Your task to perform on an android device: Open the calendar app, open the side menu, and click the "Day" option Image 0: 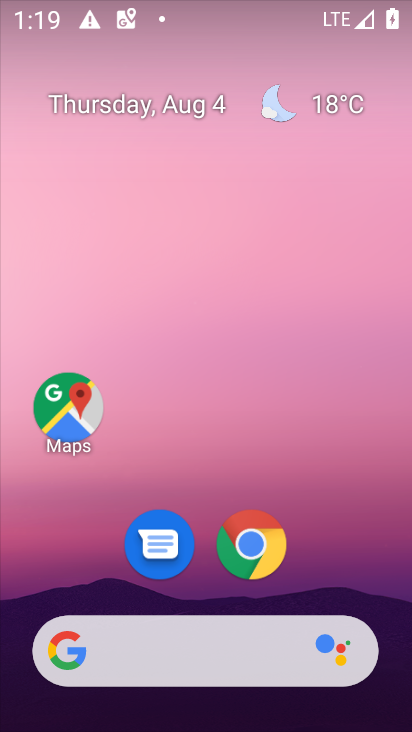
Step 0: drag from (387, 697) to (333, 55)
Your task to perform on an android device: Open the calendar app, open the side menu, and click the "Day" option Image 1: 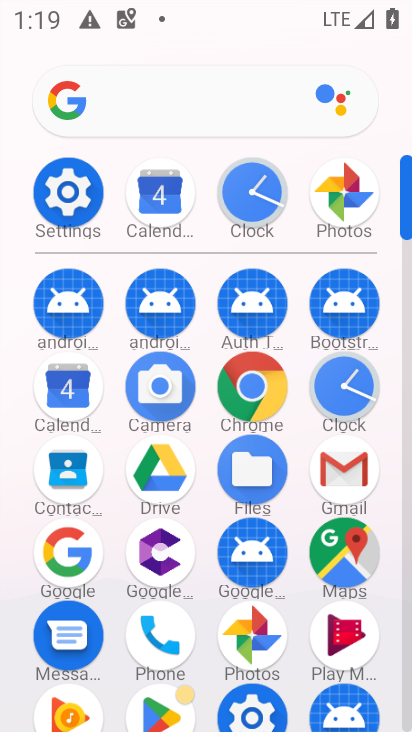
Step 1: click (57, 402)
Your task to perform on an android device: Open the calendar app, open the side menu, and click the "Day" option Image 2: 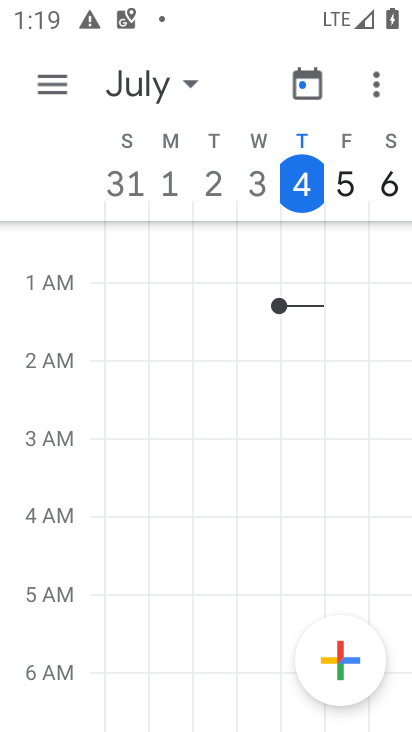
Step 2: click (57, 73)
Your task to perform on an android device: Open the calendar app, open the side menu, and click the "Day" option Image 3: 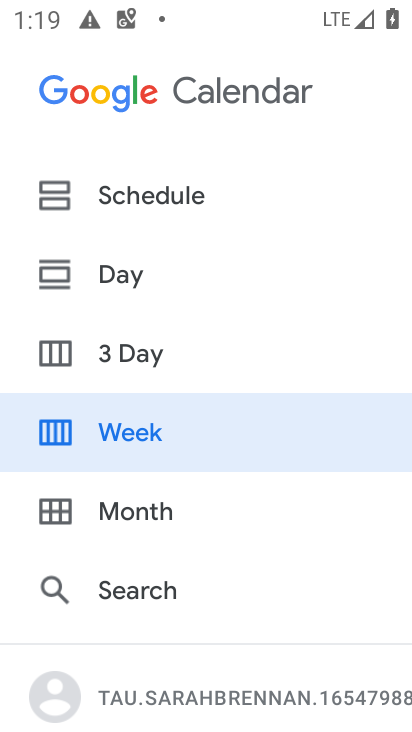
Step 3: click (103, 282)
Your task to perform on an android device: Open the calendar app, open the side menu, and click the "Day" option Image 4: 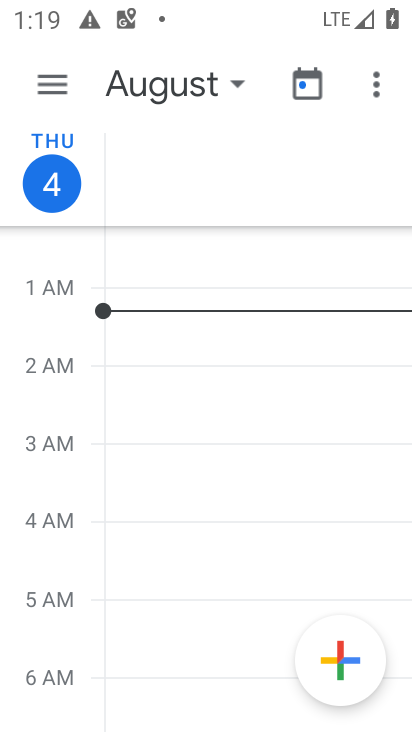
Step 4: click (52, 81)
Your task to perform on an android device: Open the calendar app, open the side menu, and click the "Day" option Image 5: 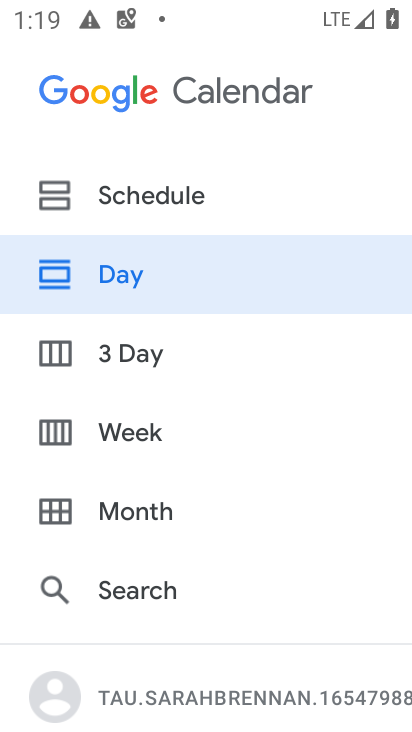
Step 5: click (312, 271)
Your task to perform on an android device: Open the calendar app, open the side menu, and click the "Day" option Image 6: 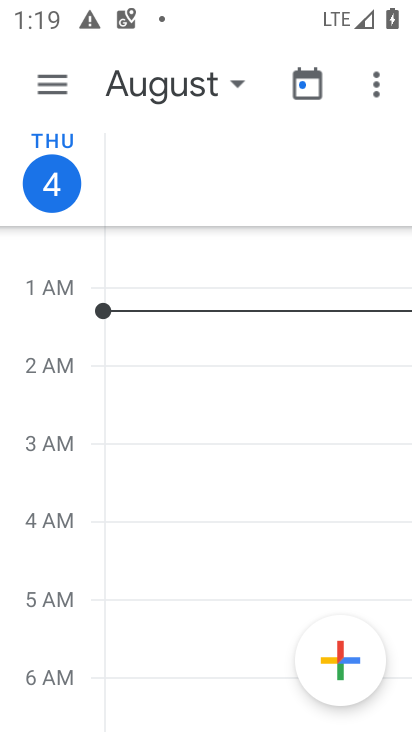
Step 6: task complete